Your task to perform on an android device: Go to internet settings Image 0: 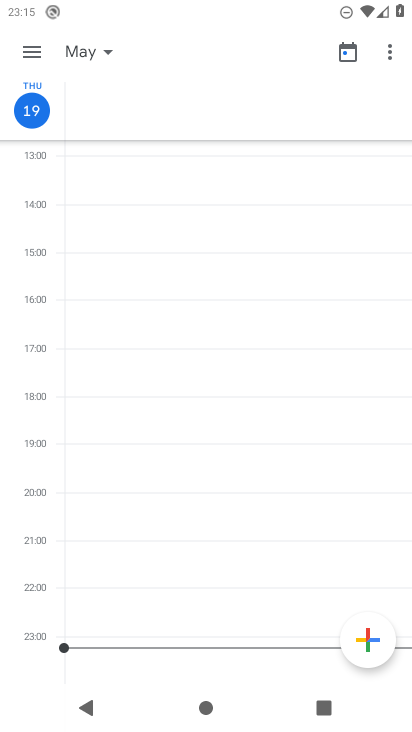
Step 0: press home button
Your task to perform on an android device: Go to internet settings Image 1: 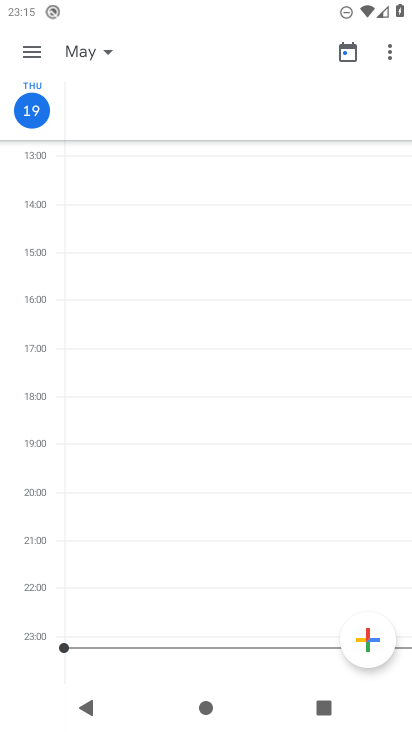
Step 1: press home button
Your task to perform on an android device: Go to internet settings Image 2: 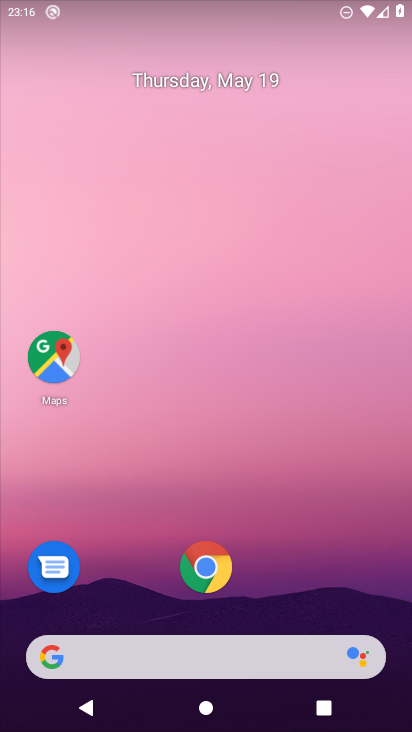
Step 2: drag from (172, 621) to (154, 1)
Your task to perform on an android device: Go to internet settings Image 3: 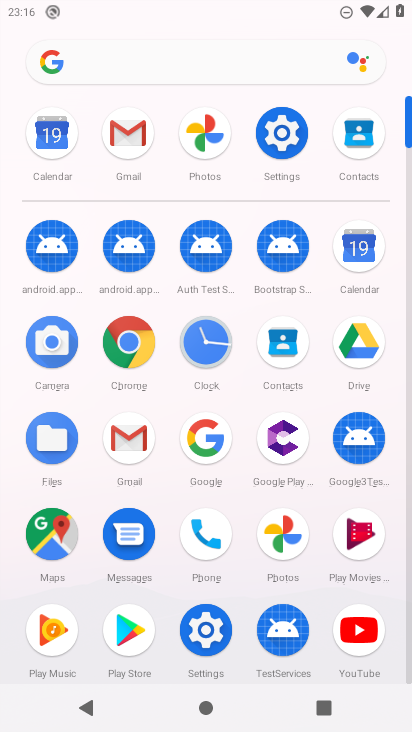
Step 3: click (278, 127)
Your task to perform on an android device: Go to internet settings Image 4: 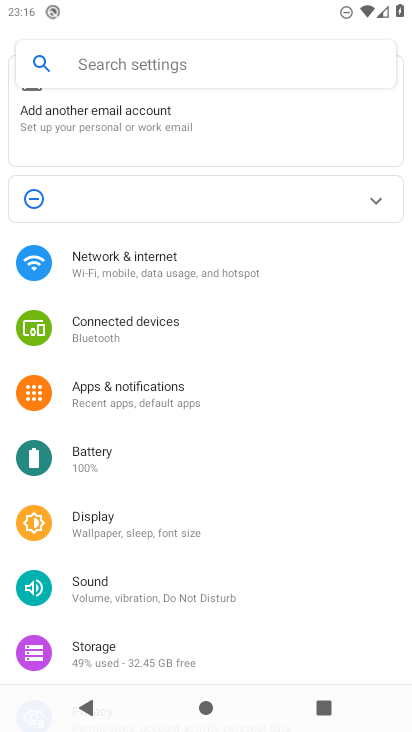
Step 4: click (124, 251)
Your task to perform on an android device: Go to internet settings Image 5: 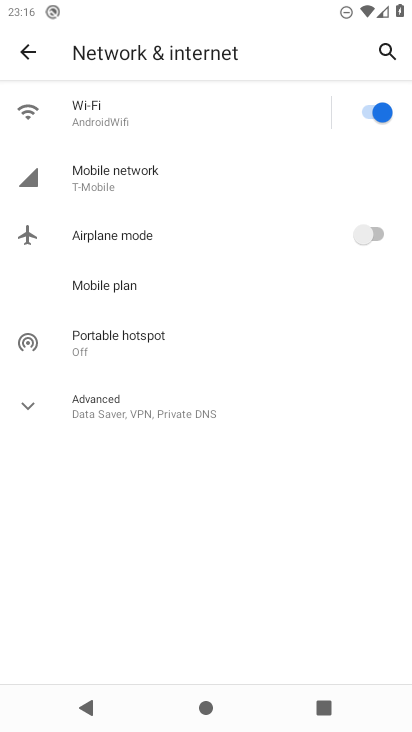
Step 5: click (31, 397)
Your task to perform on an android device: Go to internet settings Image 6: 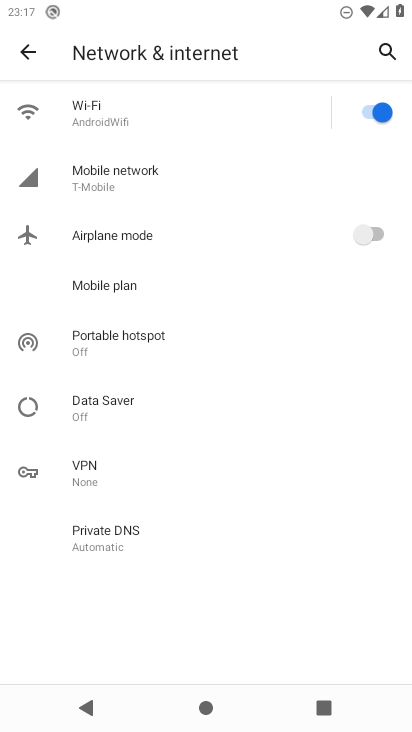
Step 6: task complete